Your task to perform on an android device: find photos in the google photos app Image 0: 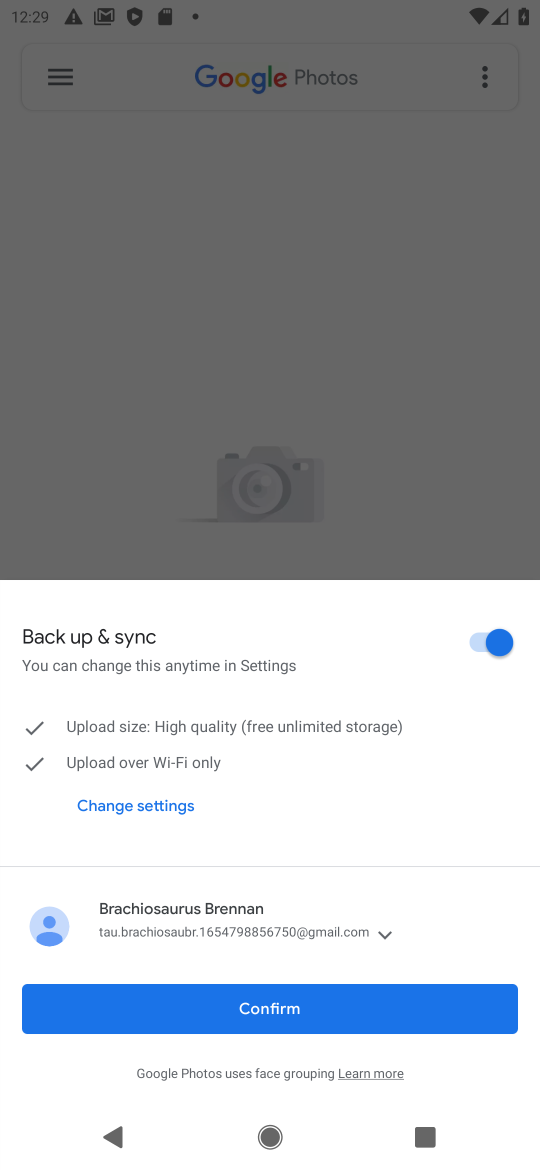
Step 0: press home button
Your task to perform on an android device: find photos in the google photos app Image 1: 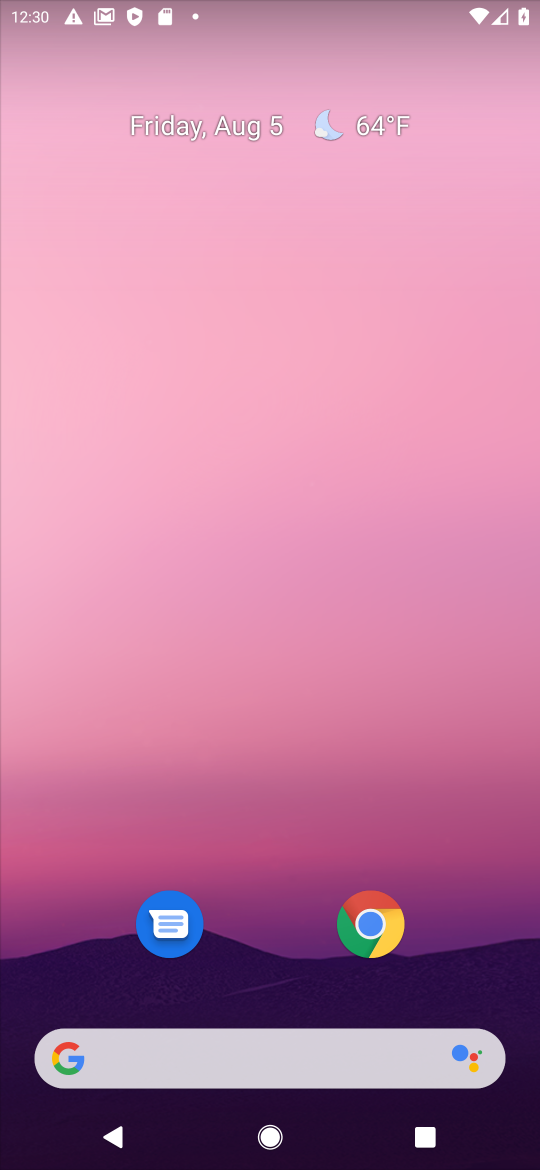
Step 1: drag from (239, 620) to (187, 84)
Your task to perform on an android device: find photos in the google photos app Image 2: 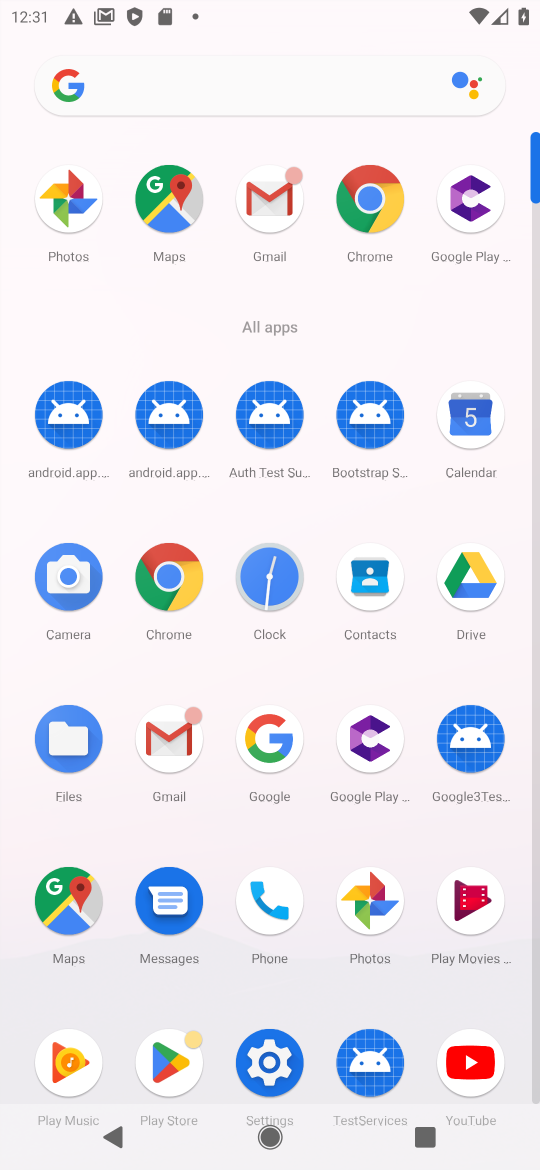
Step 2: click (56, 204)
Your task to perform on an android device: find photos in the google photos app Image 3: 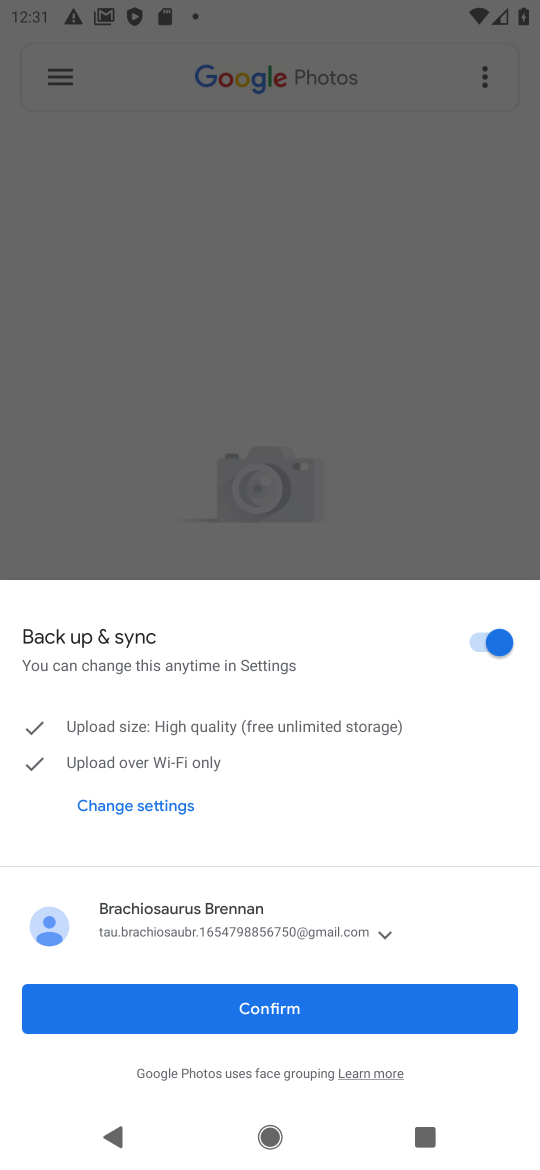
Step 3: click (326, 1017)
Your task to perform on an android device: find photos in the google photos app Image 4: 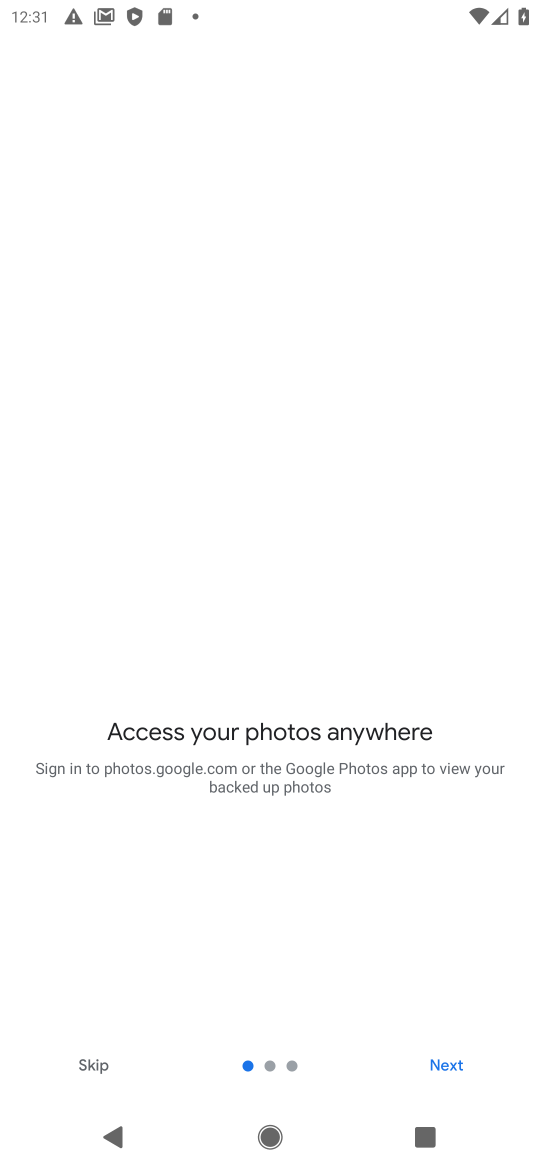
Step 4: click (447, 1061)
Your task to perform on an android device: find photos in the google photos app Image 5: 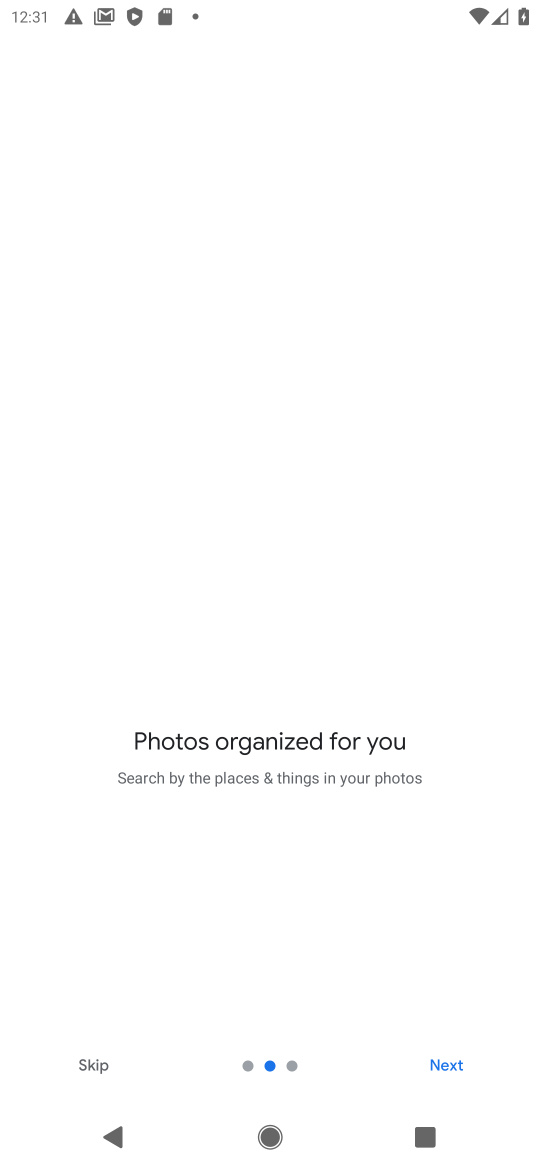
Step 5: click (447, 1061)
Your task to perform on an android device: find photos in the google photos app Image 6: 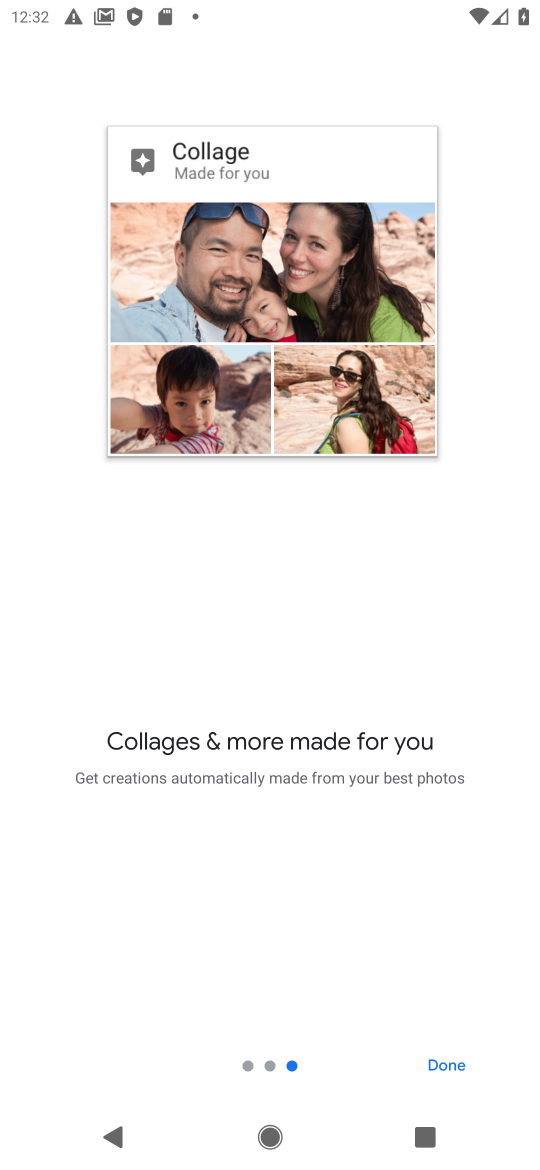
Step 6: click (451, 1062)
Your task to perform on an android device: find photos in the google photos app Image 7: 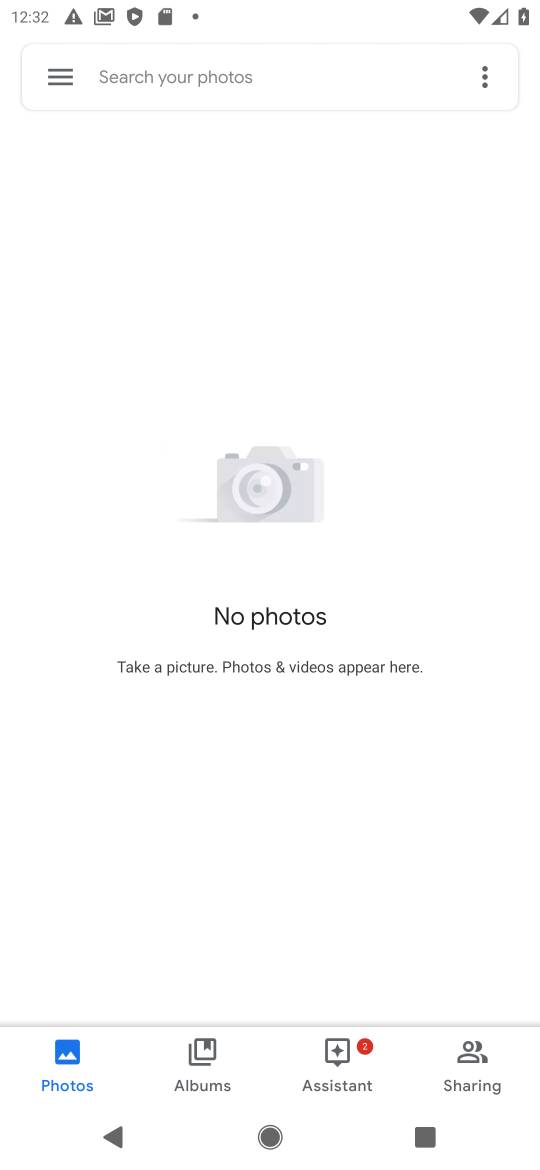
Step 7: click (48, 1054)
Your task to perform on an android device: find photos in the google photos app Image 8: 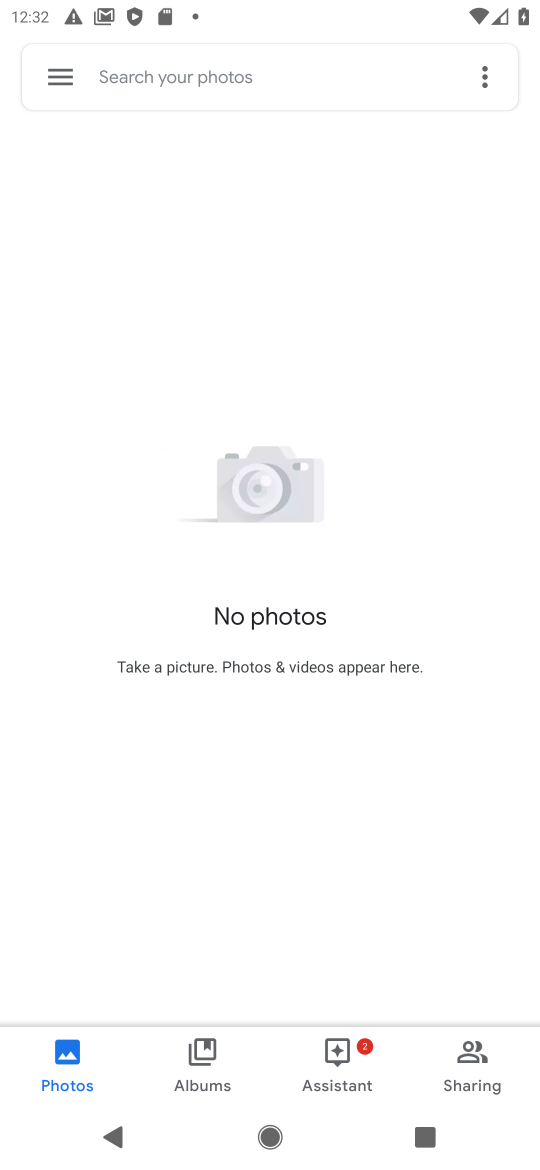
Step 8: task complete